Your task to perform on an android device: add a label to a message in the gmail app Image 0: 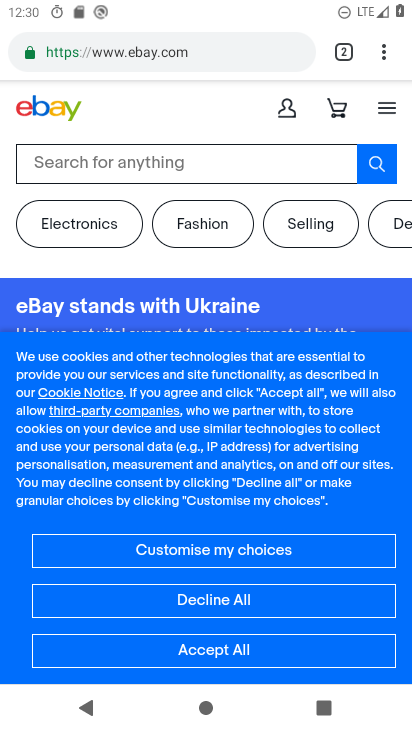
Step 0: press home button
Your task to perform on an android device: add a label to a message in the gmail app Image 1: 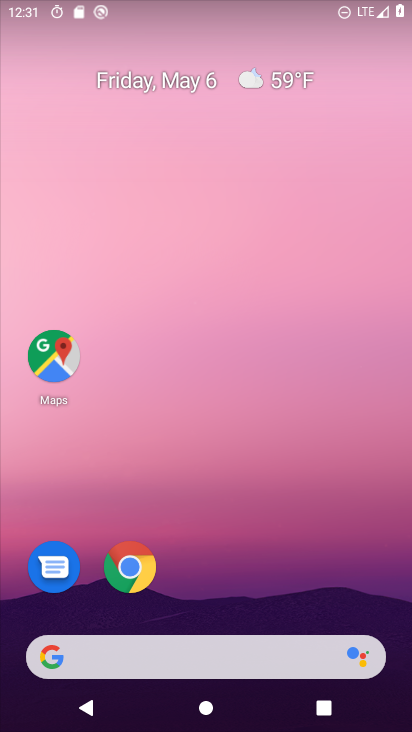
Step 1: drag from (341, 593) to (358, 16)
Your task to perform on an android device: add a label to a message in the gmail app Image 2: 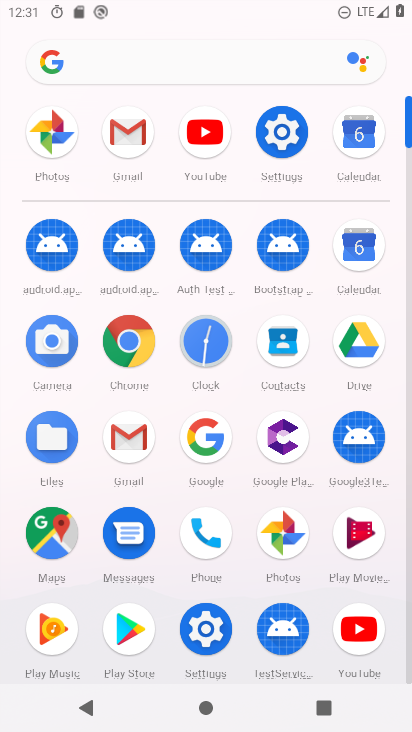
Step 2: click (135, 141)
Your task to perform on an android device: add a label to a message in the gmail app Image 3: 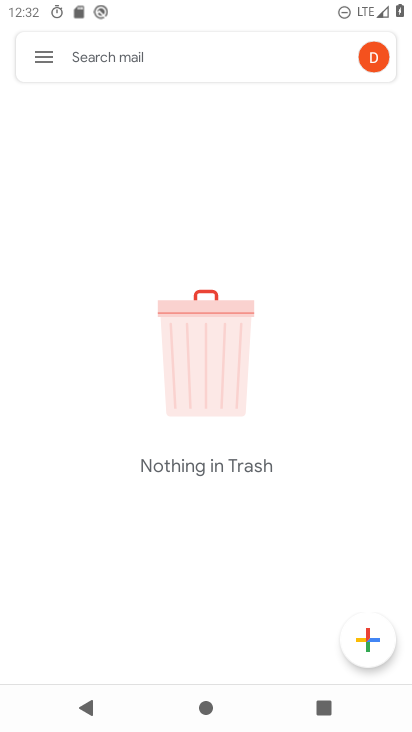
Step 3: click (40, 49)
Your task to perform on an android device: add a label to a message in the gmail app Image 4: 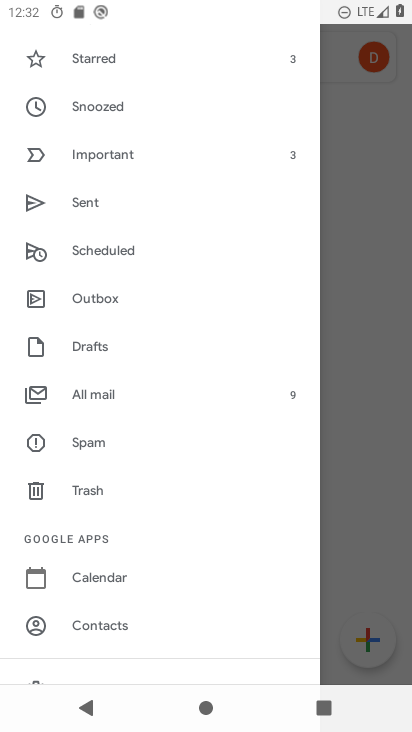
Step 4: click (84, 389)
Your task to perform on an android device: add a label to a message in the gmail app Image 5: 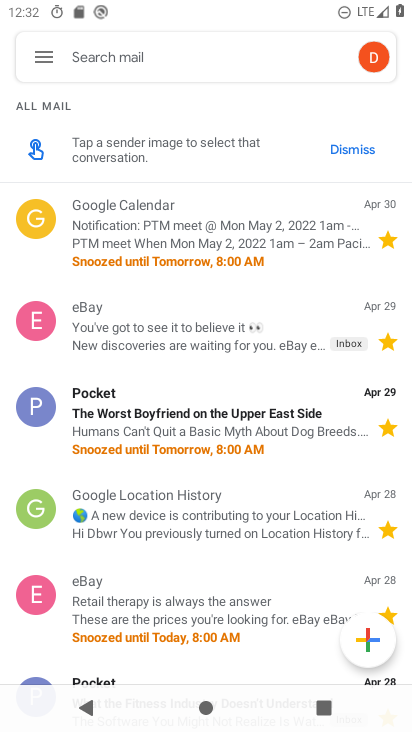
Step 5: click (180, 526)
Your task to perform on an android device: add a label to a message in the gmail app Image 6: 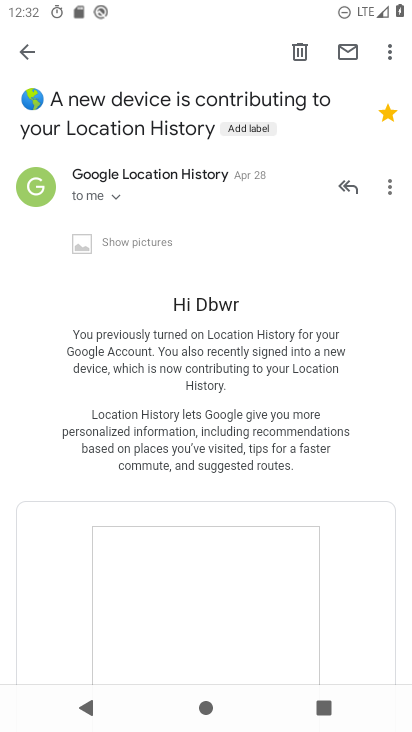
Step 6: click (253, 131)
Your task to perform on an android device: add a label to a message in the gmail app Image 7: 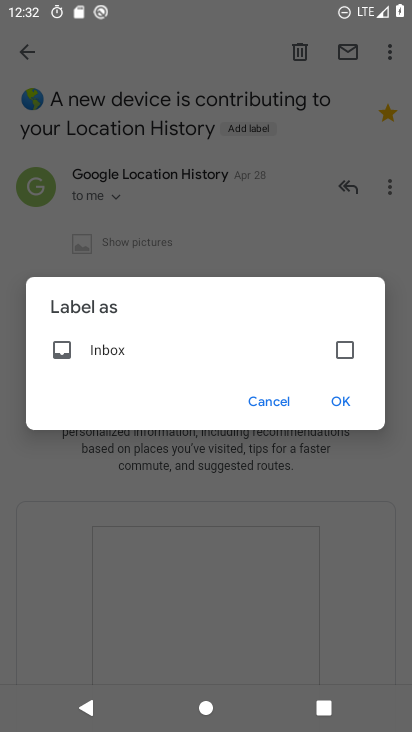
Step 7: click (344, 355)
Your task to perform on an android device: add a label to a message in the gmail app Image 8: 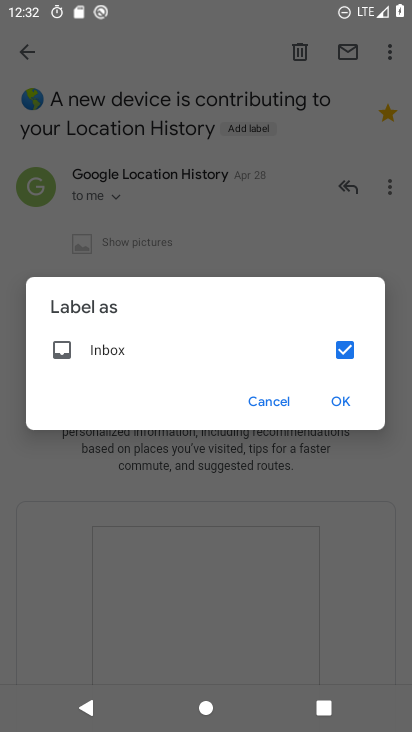
Step 8: click (340, 399)
Your task to perform on an android device: add a label to a message in the gmail app Image 9: 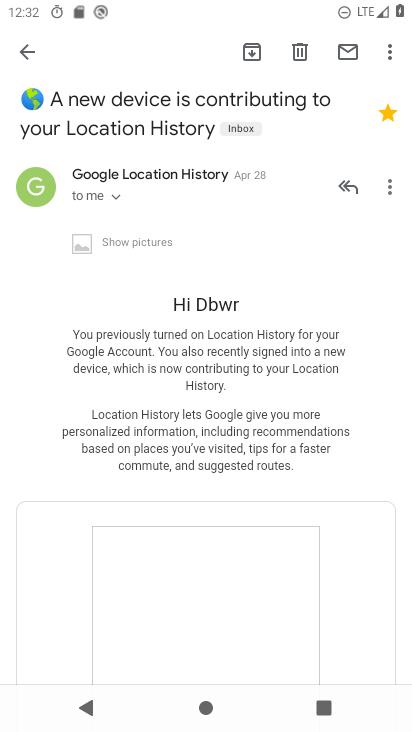
Step 9: task complete